Your task to perform on an android device: set default search engine in the chrome app Image 0: 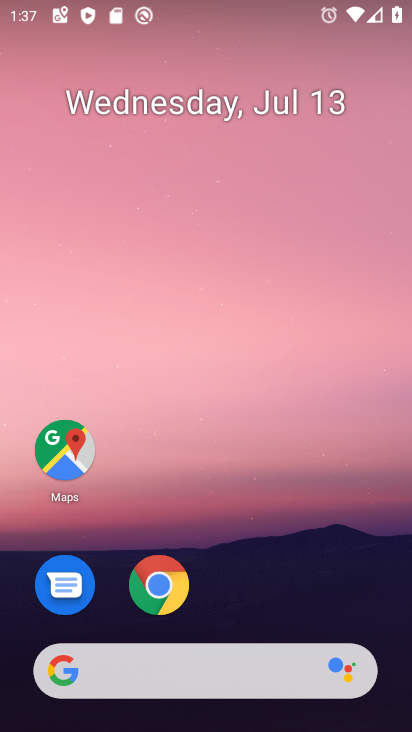
Step 0: click (151, 582)
Your task to perform on an android device: set default search engine in the chrome app Image 1: 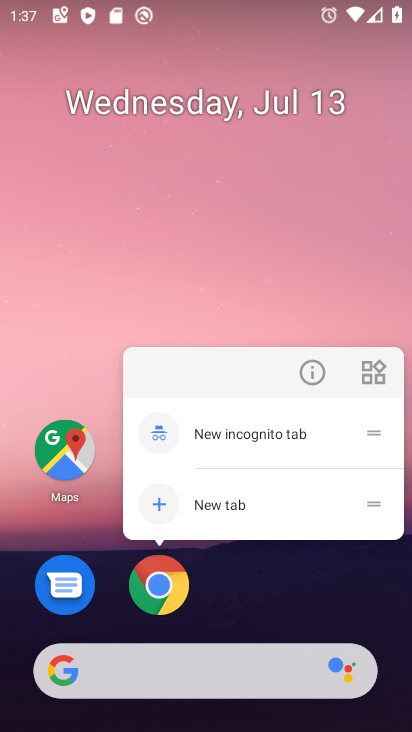
Step 1: click (160, 595)
Your task to perform on an android device: set default search engine in the chrome app Image 2: 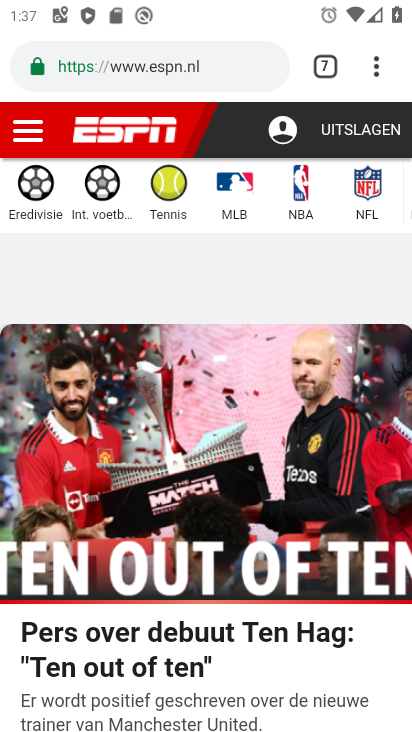
Step 2: drag from (374, 73) to (224, 589)
Your task to perform on an android device: set default search engine in the chrome app Image 3: 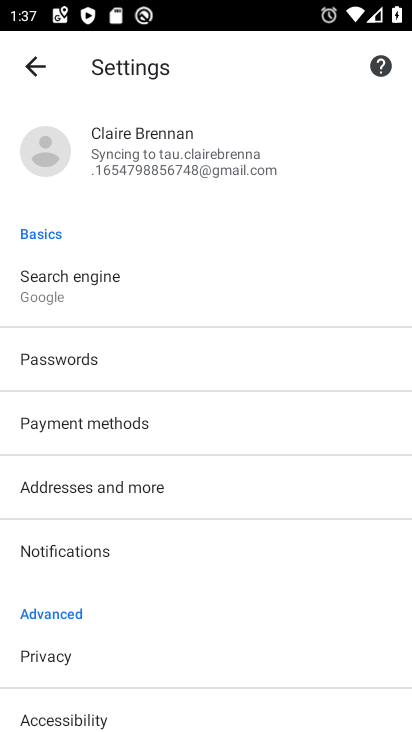
Step 3: click (96, 276)
Your task to perform on an android device: set default search engine in the chrome app Image 4: 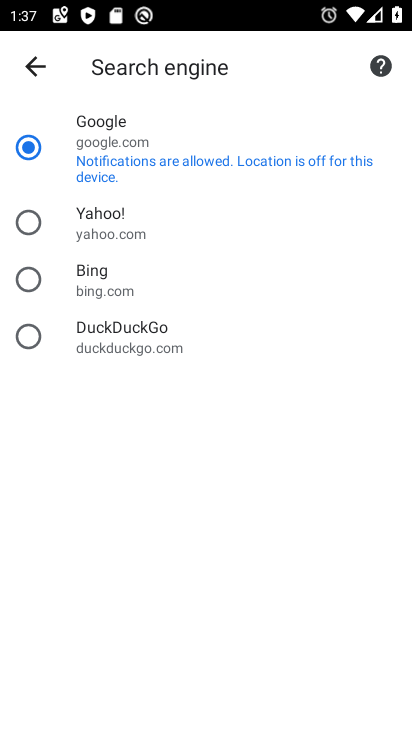
Step 4: click (31, 222)
Your task to perform on an android device: set default search engine in the chrome app Image 5: 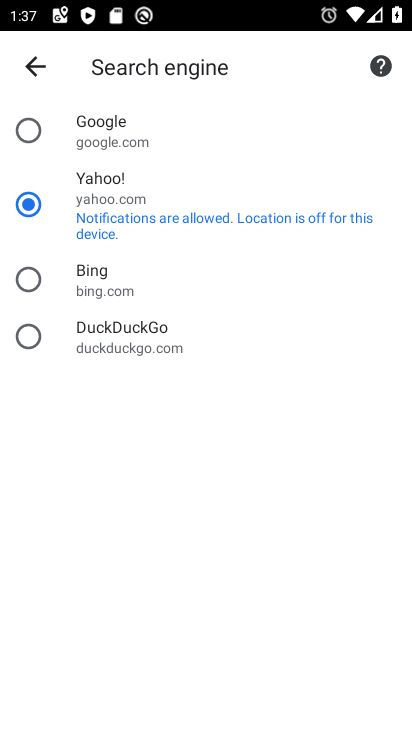
Step 5: task complete